Your task to perform on an android device: Open settings on Google Maps Image 0: 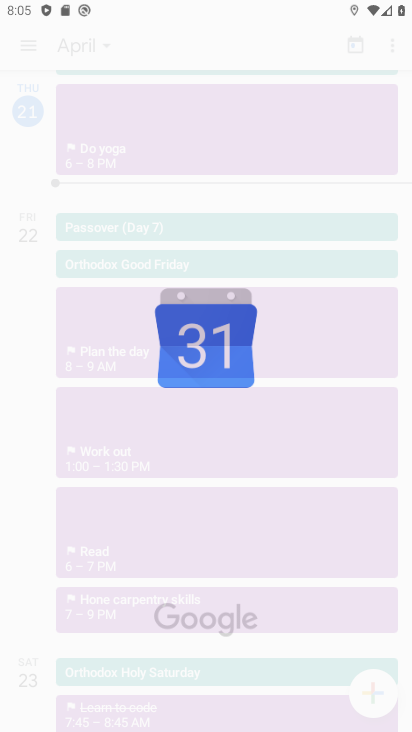
Step 0: drag from (272, 612) to (293, 230)
Your task to perform on an android device: Open settings on Google Maps Image 1: 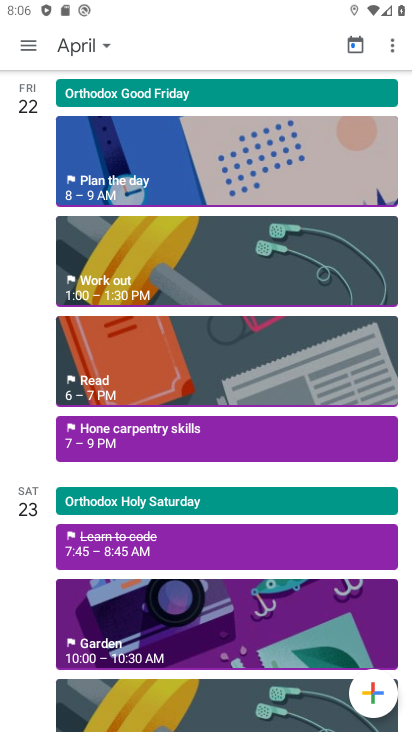
Step 1: press back button
Your task to perform on an android device: Open settings on Google Maps Image 2: 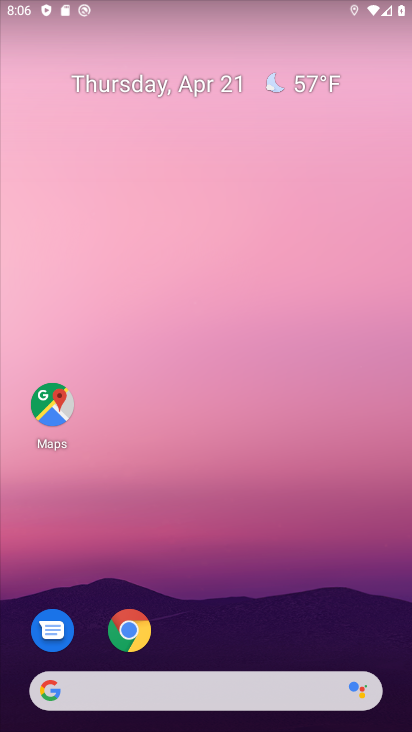
Step 2: drag from (296, 567) to (259, 291)
Your task to perform on an android device: Open settings on Google Maps Image 3: 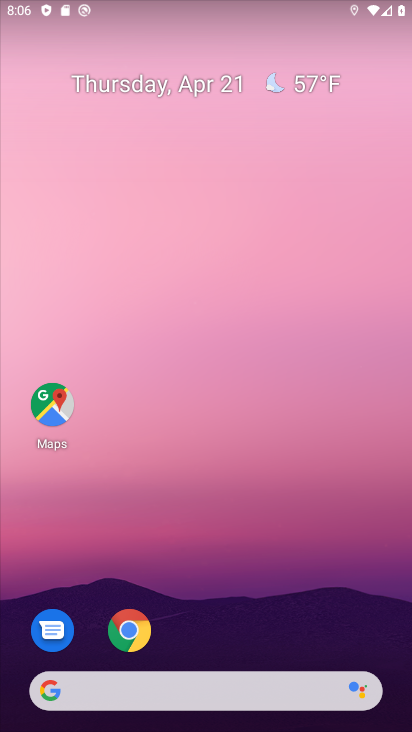
Step 3: drag from (320, 618) to (277, 270)
Your task to perform on an android device: Open settings on Google Maps Image 4: 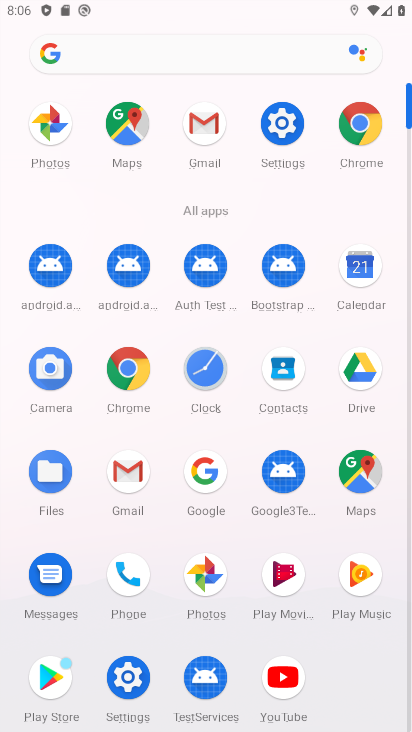
Step 4: click (361, 458)
Your task to perform on an android device: Open settings on Google Maps Image 5: 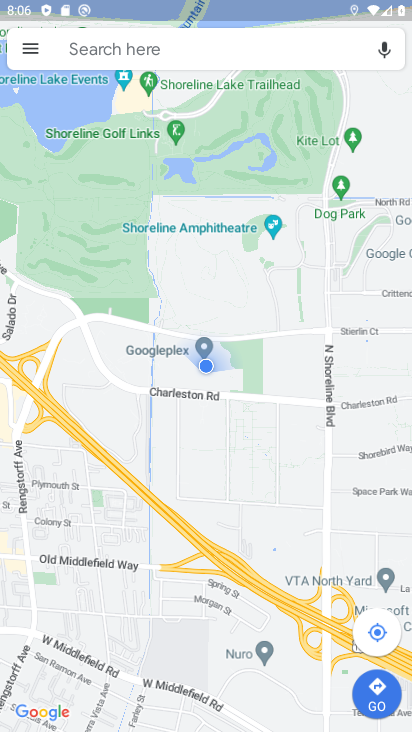
Step 5: click (33, 46)
Your task to perform on an android device: Open settings on Google Maps Image 6: 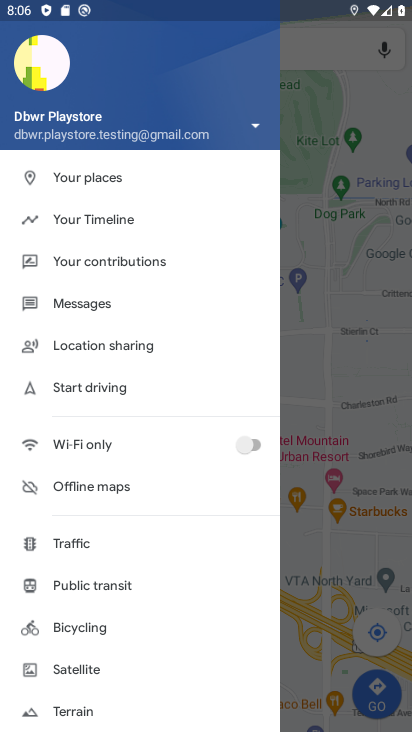
Step 6: drag from (136, 665) to (143, 517)
Your task to perform on an android device: Open settings on Google Maps Image 7: 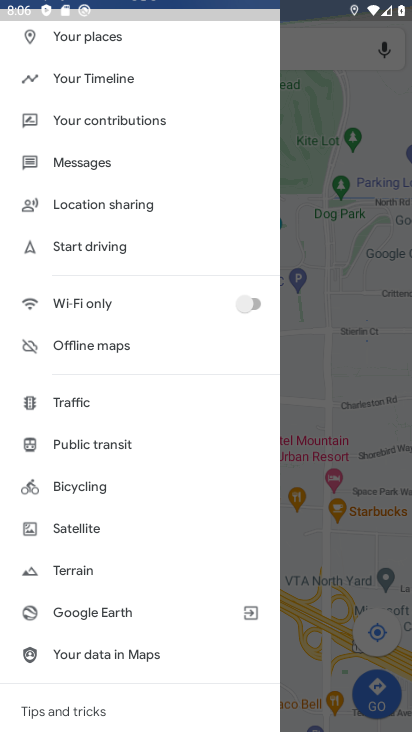
Step 7: drag from (107, 655) to (130, 534)
Your task to perform on an android device: Open settings on Google Maps Image 8: 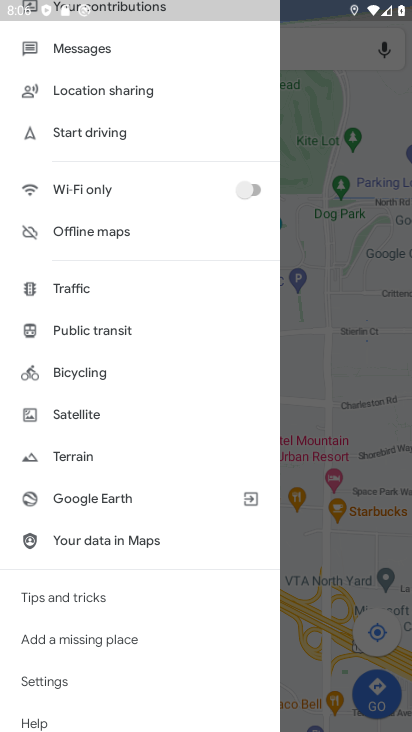
Step 8: click (87, 680)
Your task to perform on an android device: Open settings on Google Maps Image 9: 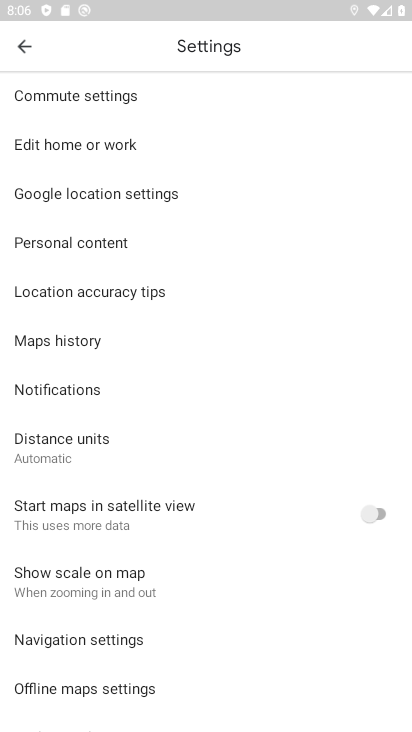
Step 9: task complete